Your task to perform on an android device: Open Chrome and go to the settings page Image 0: 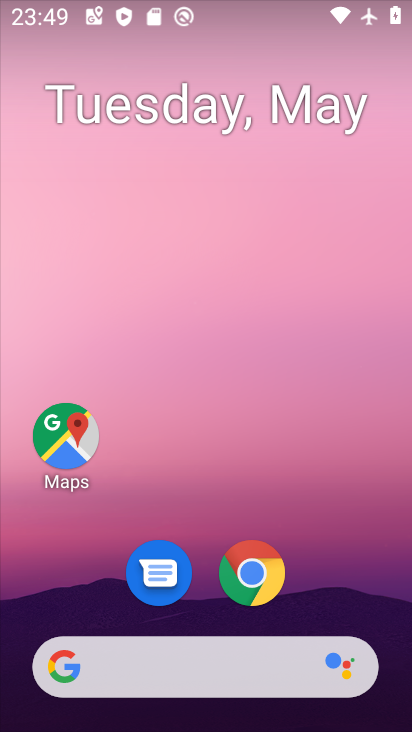
Step 0: click (256, 574)
Your task to perform on an android device: Open Chrome and go to the settings page Image 1: 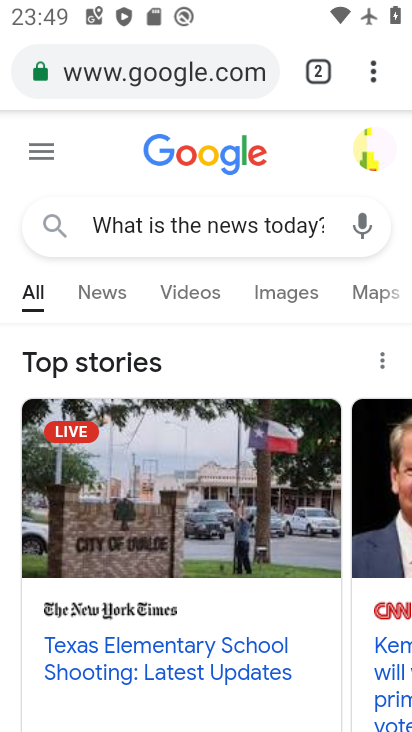
Step 1: click (372, 73)
Your task to perform on an android device: Open Chrome and go to the settings page Image 2: 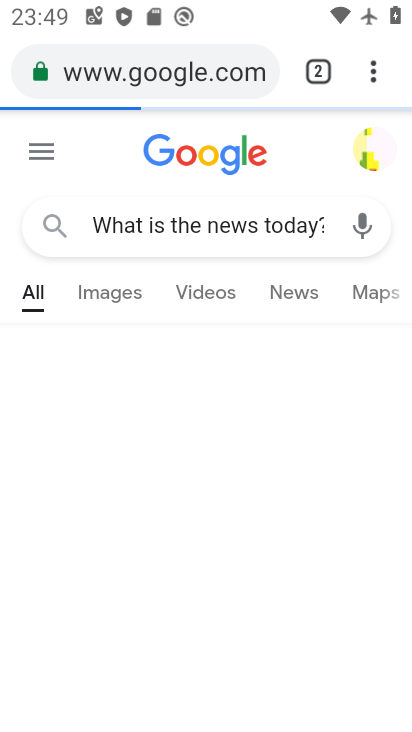
Step 2: click (375, 80)
Your task to perform on an android device: Open Chrome and go to the settings page Image 3: 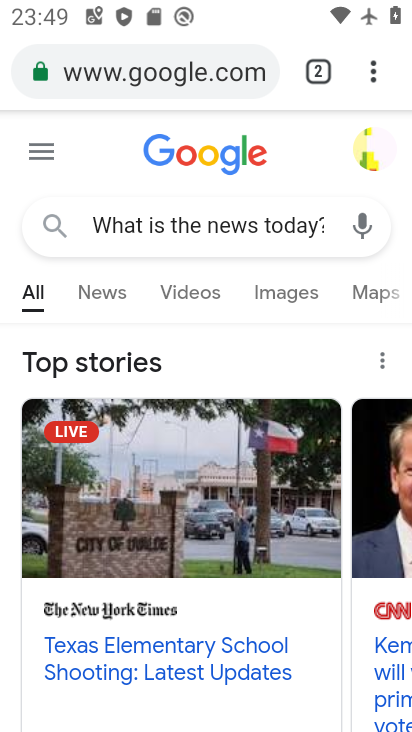
Step 3: click (372, 78)
Your task to perform on an android device: Open Chrome and go to the settings page Image 4: 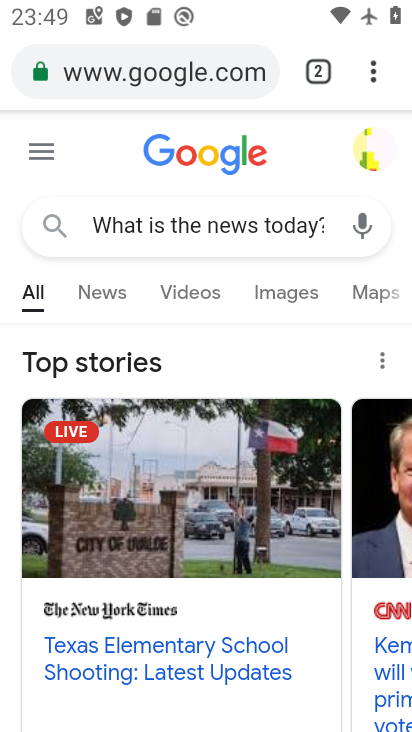
Step 4: click (376, 83)
Your task to perform on an android device: Open Chrome and go to the settings page Image 5: 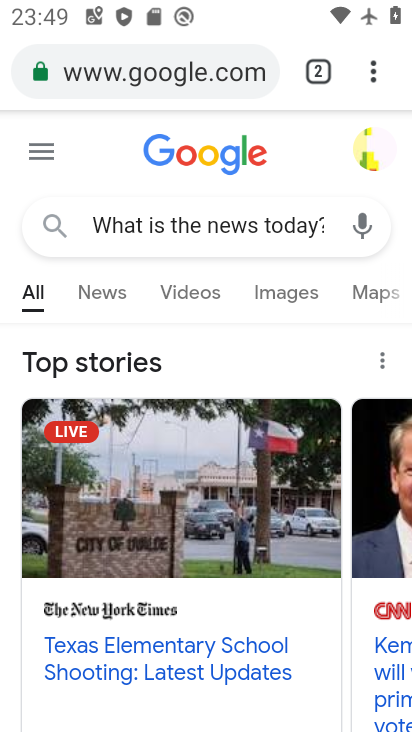
Step 5: click (389, 71)
Your task to perform on an android device: Open Chrome and go to the settings page Image 6: 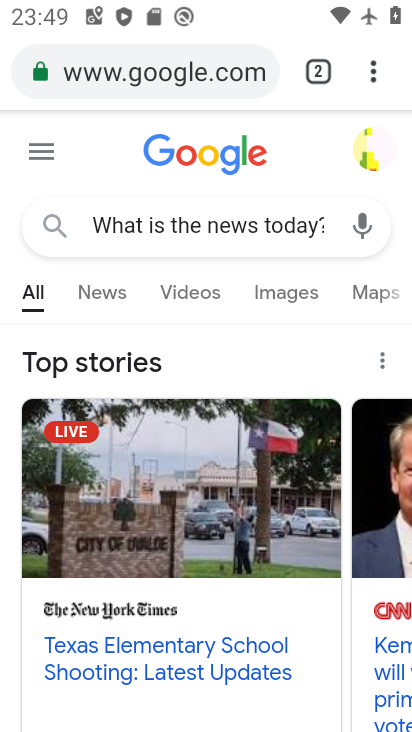
Step 6: click (381, 67)
Your task to perform on an android device: Open Chrome and go to the settings page Image 7: 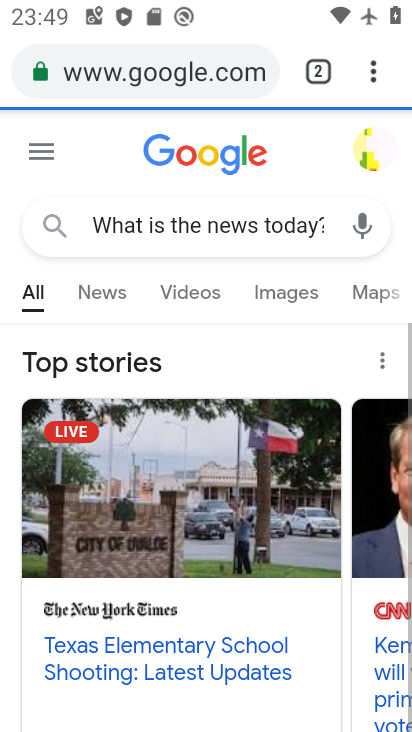
Step 7: click (372, 66)
Your task to perform on an android device: Open Chrome and go to the settings page Image 8: 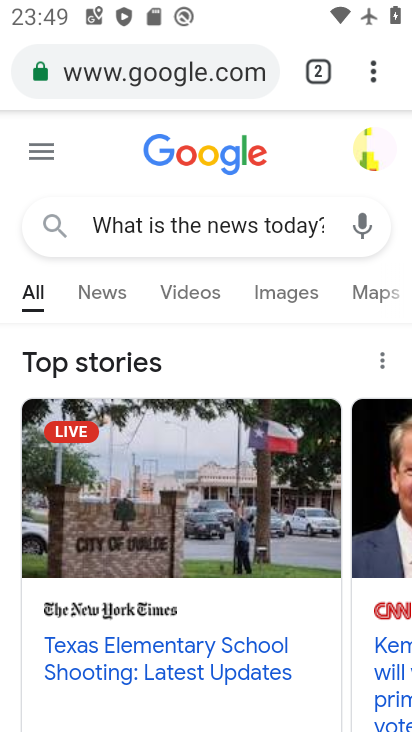
Step 8: click (372, 73)
Your task to perform on an android device: Open Chrome and go to the settings page Image 9: 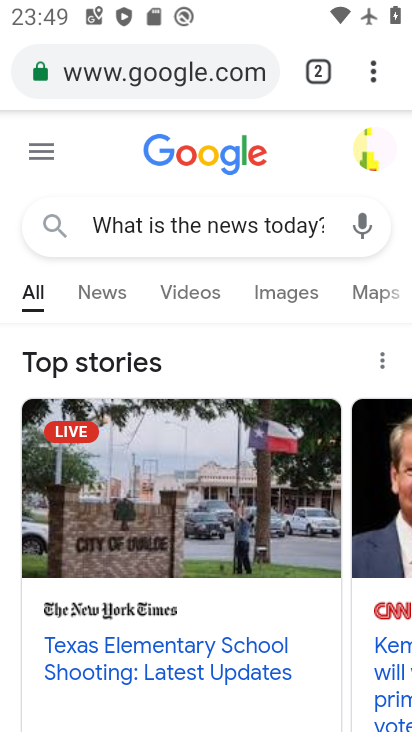
Step 9: click (372, 73)
Your task to perform on an android device: Open Chrome and go to the settings page Image 10: 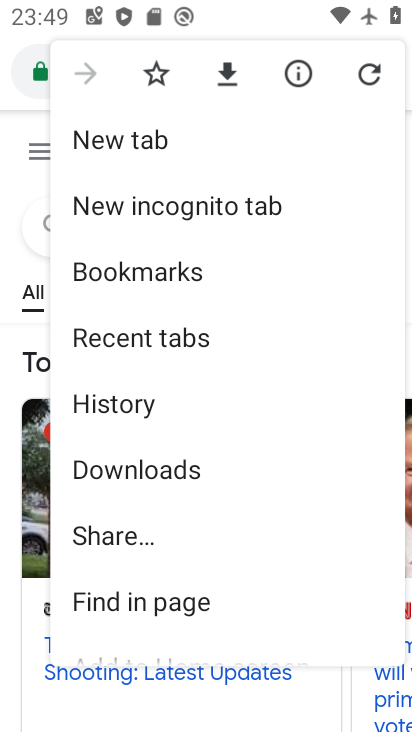
Step 10: drag from (242, 513) to (243, 257)
Your task to perform on an android device: Open Chrome and go to the settings page Image 11: 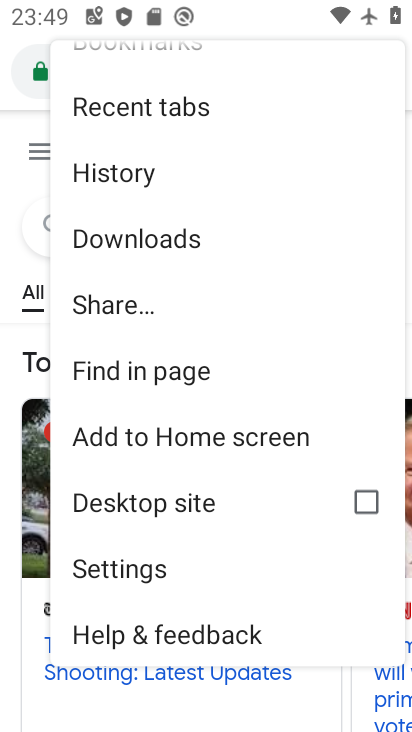
Step 11: click (196, 561)
Your task to perform on an android device: Open Chrome and go to the settings page Image 12: 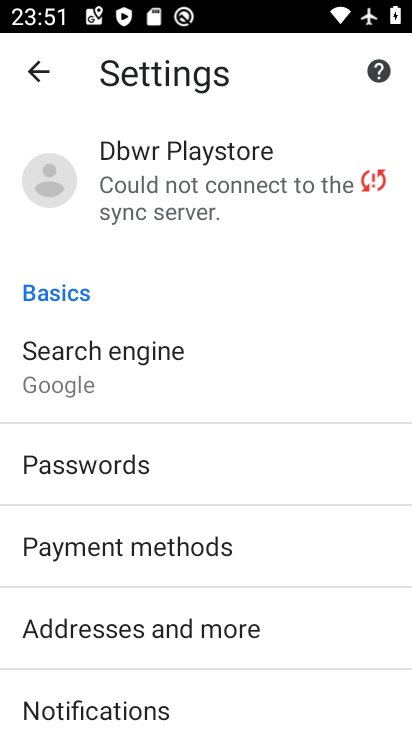
Step 12: task complete